Your task to perform on an android device: Open Google Maps Image 0: 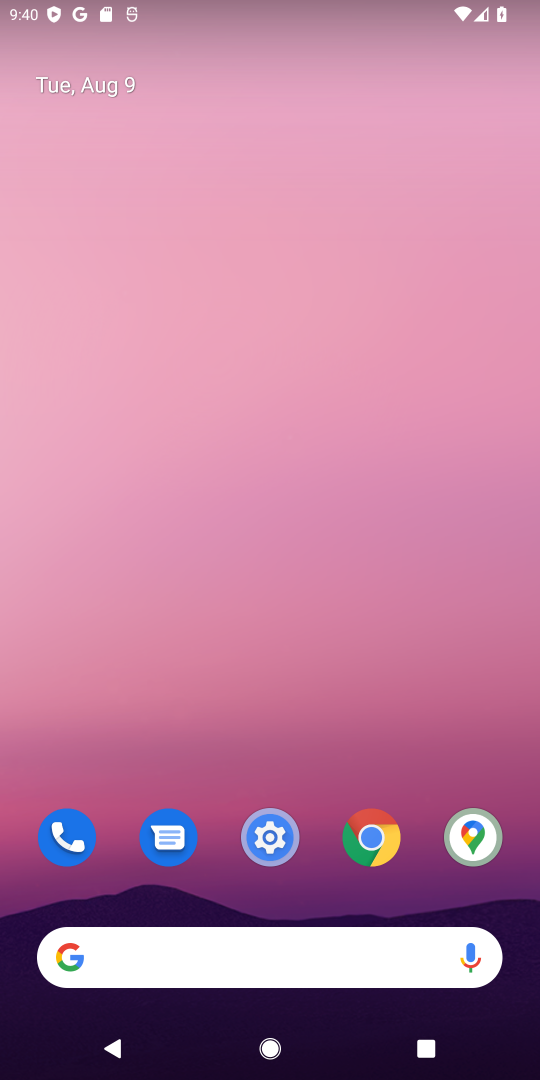
Step 0: drag from (302, 909) to (279, 282)
Your task to perform on an android device: Open Google Maps Image 1: 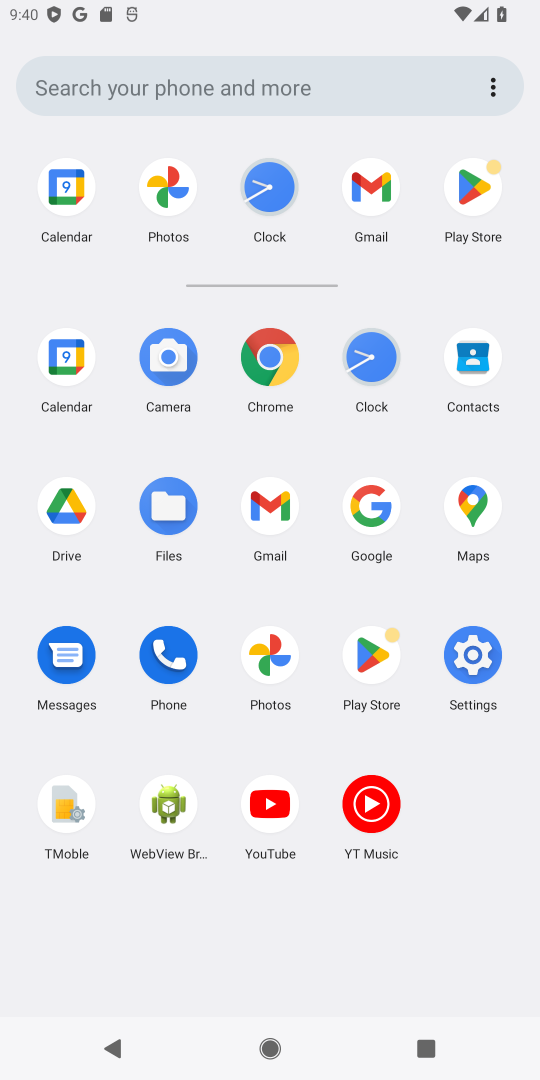
Step 1: click (468, 502)
Your task to perform on an android device: Open Google Maps Image 2: 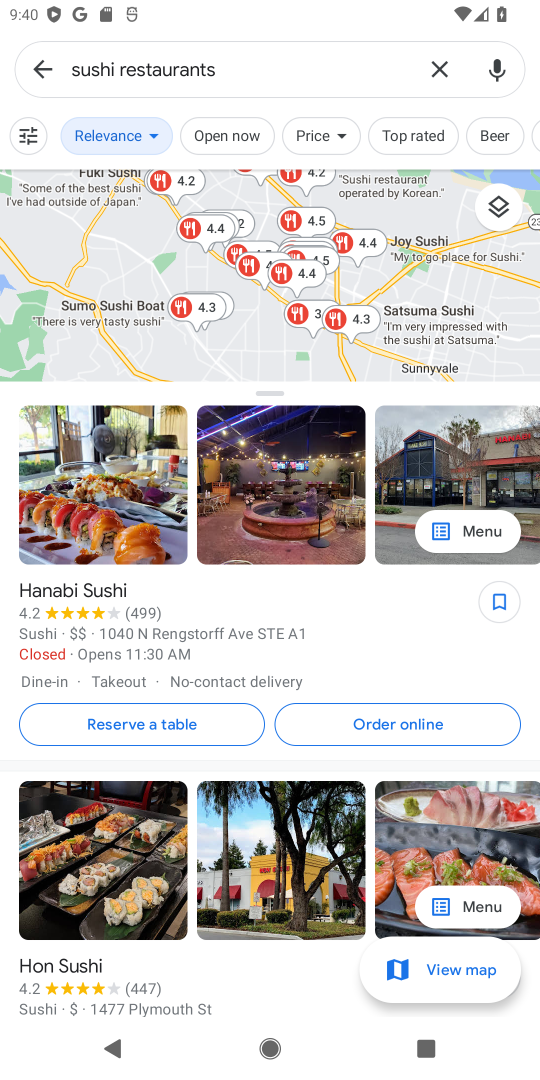
Step 2: task complete